Your task to perform on an android device: What's the weather? Image 0: 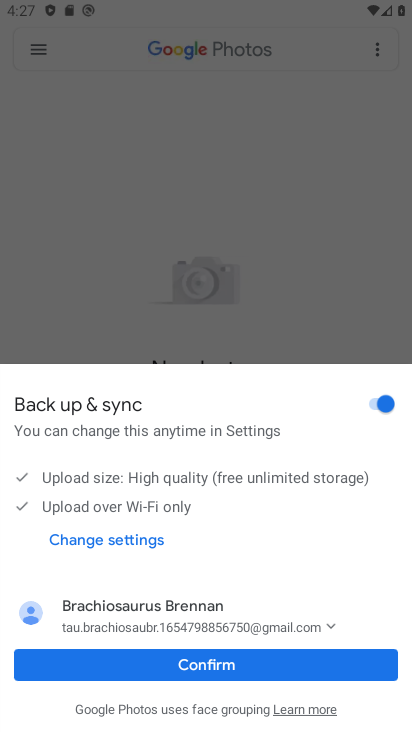
Step 0: click (240, 670)
Your task to perform on an android device: What's the weather? Image 1: 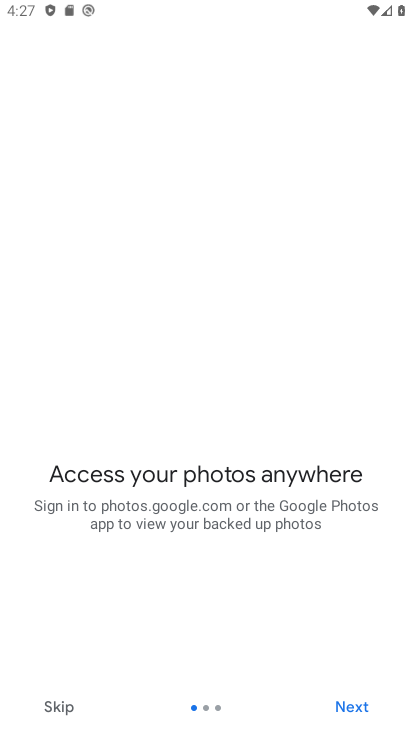
Step 1: click (370, 709)
Your task to perform on an android device: What's the weather? Image 2: 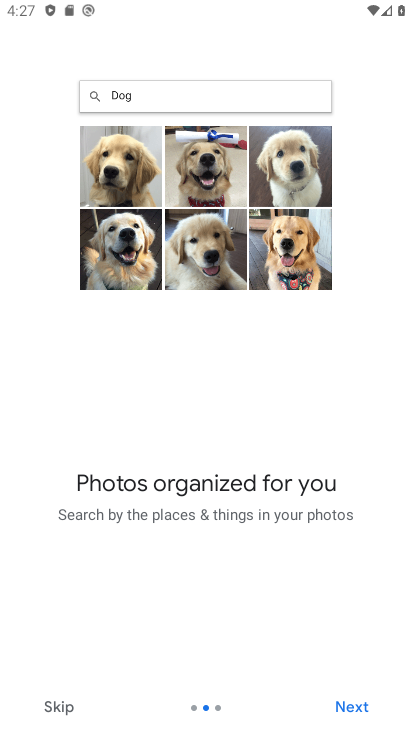
Step 2: click (370, 709)
Your task to perform on an android device: What's the weather? Image 3: 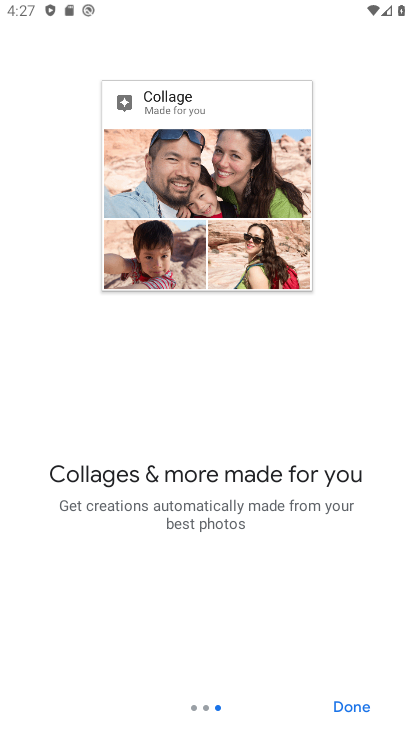
Step 3: click (368, 711)
Your task to perform on an android device: What's the weather? Image 4: 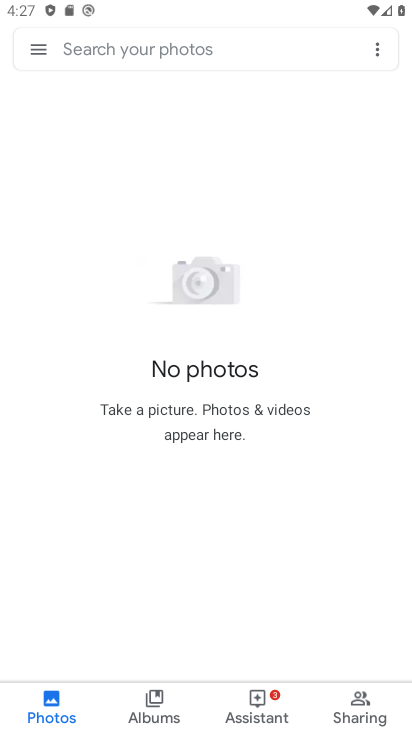
Step 4: press home button
Your task to perform on an android device: What's the weather? Image 5: 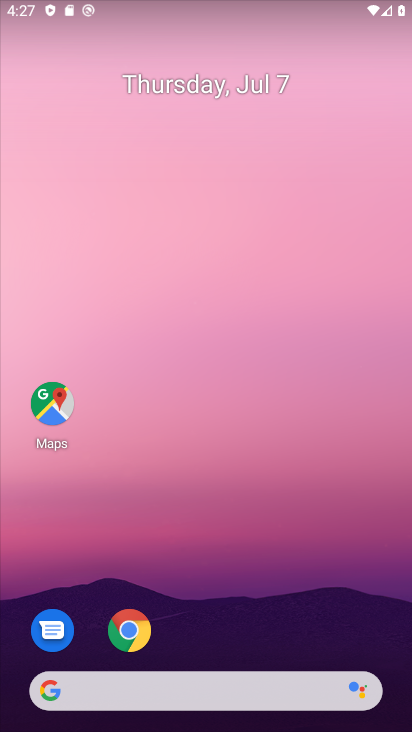
Step 5: drag from (269, 408) to (297, 234)
Your task to perform on an android device: What's the weather? Image 6: 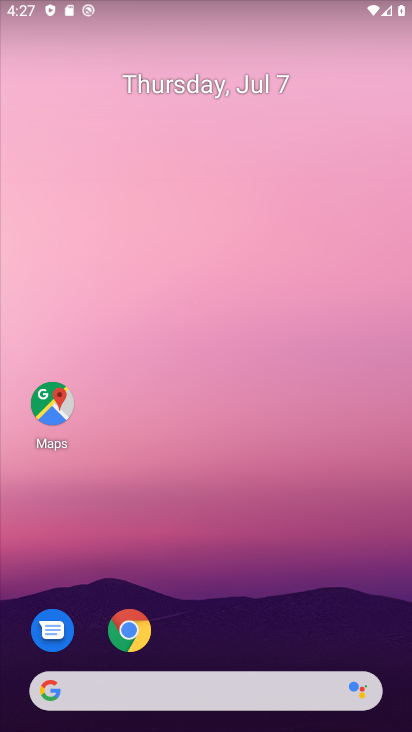
Step 6: drag from (274, 585) to (308, 164)
Your task to perform on an android device: What's the weather? Image 7: 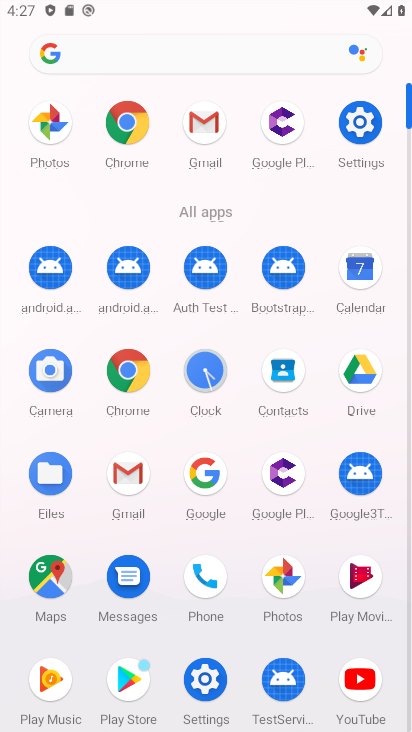
Step 7: click (198, 478)
Your task to perform on an android device: What's the weather? Image 8: 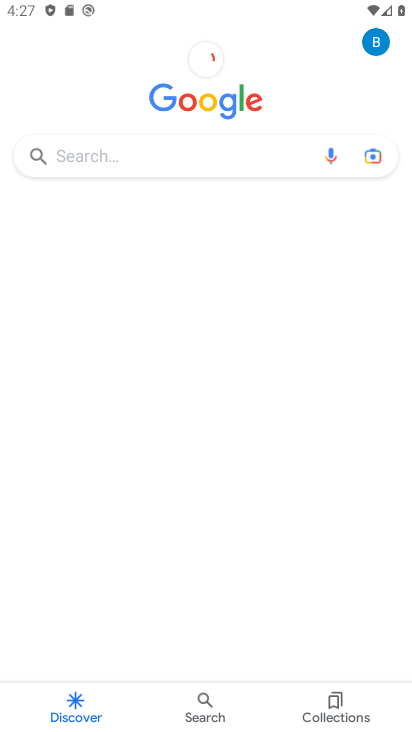
Step 8: click (183, 163)
Your task to perform on an android device: What's the weather? Image 9: 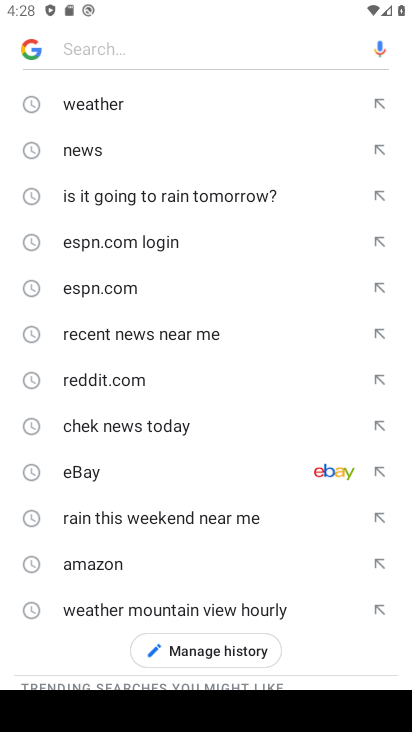
Step 9: type "weather"
Your task to perform on an android device: What's the weather? Image 10: 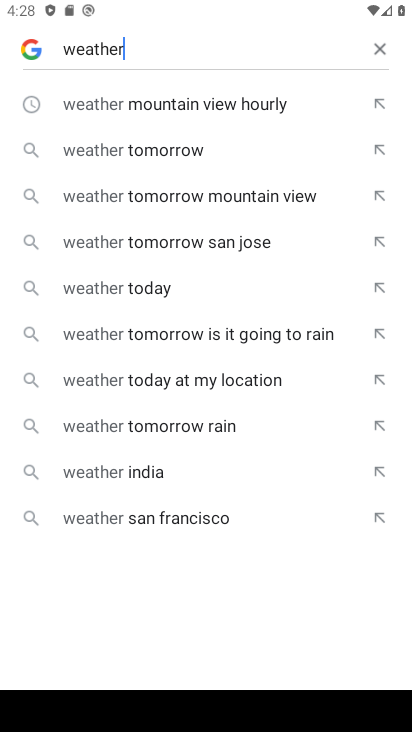
Step 10: click (205, 298)
Your task to perform on an android device: What's the weather? Image 11: 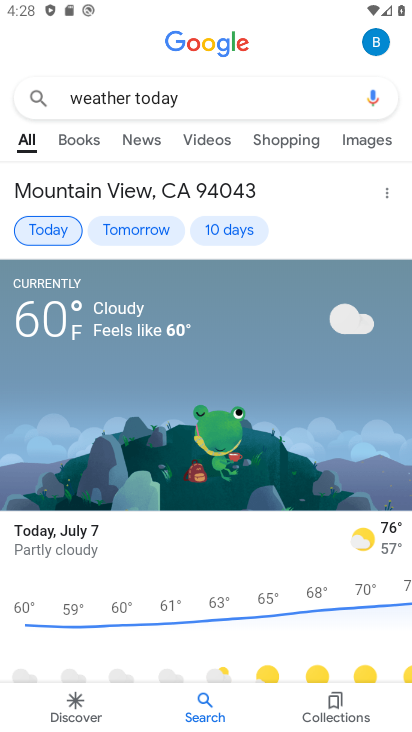
Step 11: task complete